Your task to perform on an android device: Open Google Maps and go to "Timeline" Image 0: 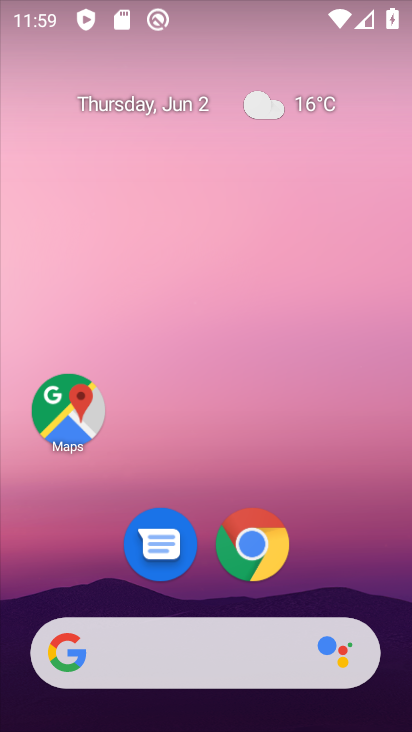
Step 0: drag from (370, 588) to (355, 95)
Your task to perform on an android device: Open Google Maps and go to "Timeline" Image 1: 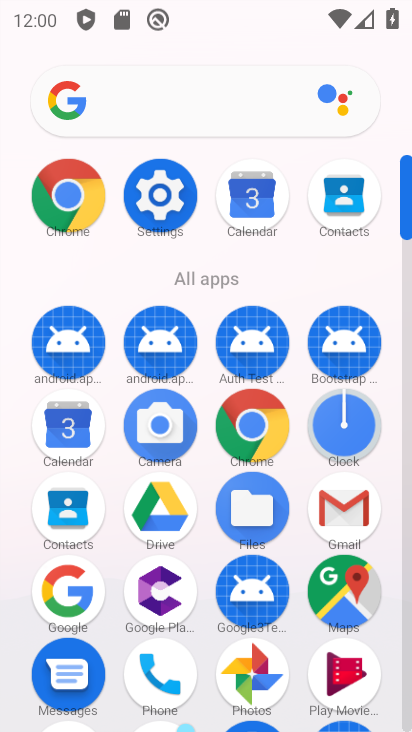
Step 1: click (371, 593)
Your task to perform on an android device: Open Google Maps and go to "Timeline" Image 2: 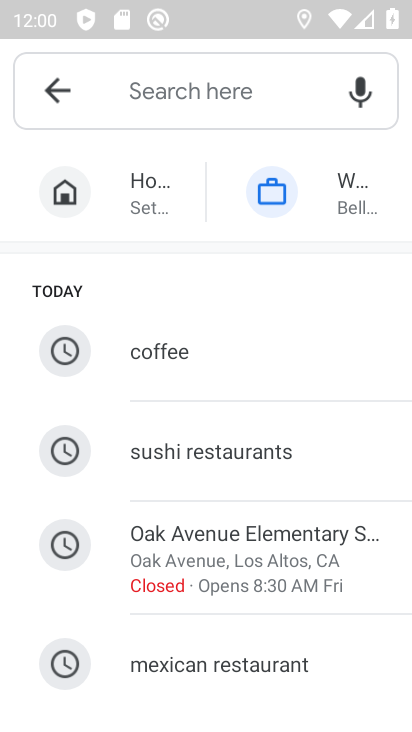
Step 2: click (65, 98)
Your task to perform on an android device: Open Google Maps and go to "Timeline" Image 3: 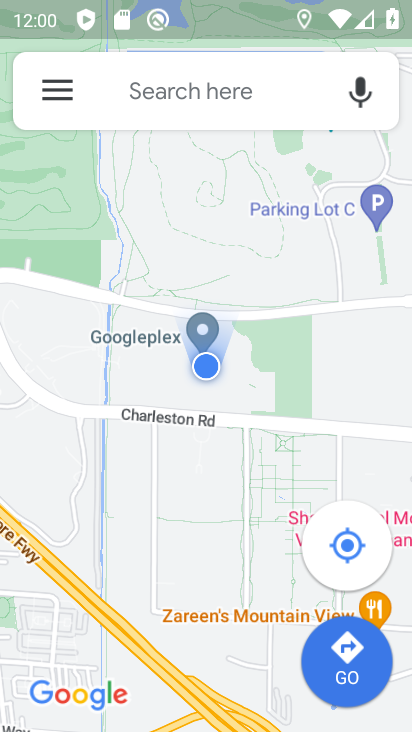
Step 3: click (65, 98)
Your task to perform on an android device: Open Google Maps and go to "Timeline" Image 4: 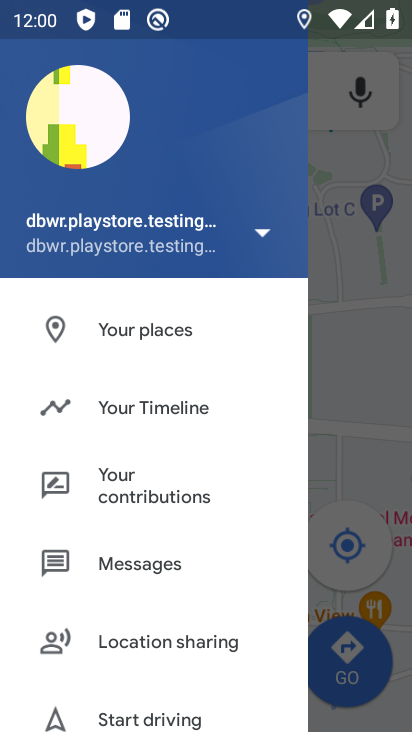
Step 4: click (141, 413)
Your task to perform on an android device: Open Google Maps and go to "Timeline" Image 5: 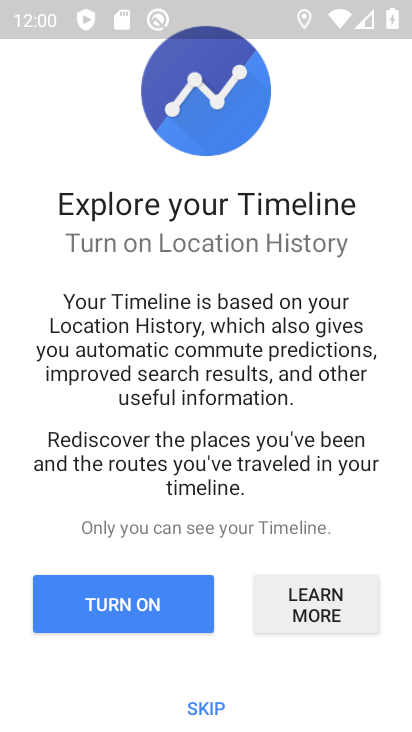
Step 5: click (222, 701)
Your task to perform on an android device: Open Google Maps and go to "Timeline" Image 6: 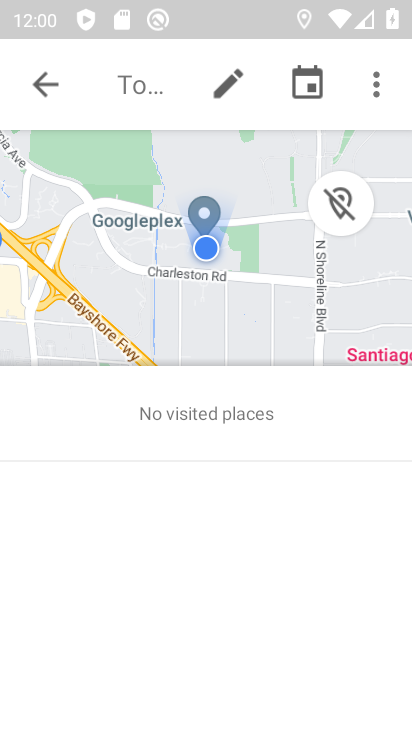
Step 6: task complete